Your task to perform on an android device: Search for seafood restaurants on Google Maps Image 0: 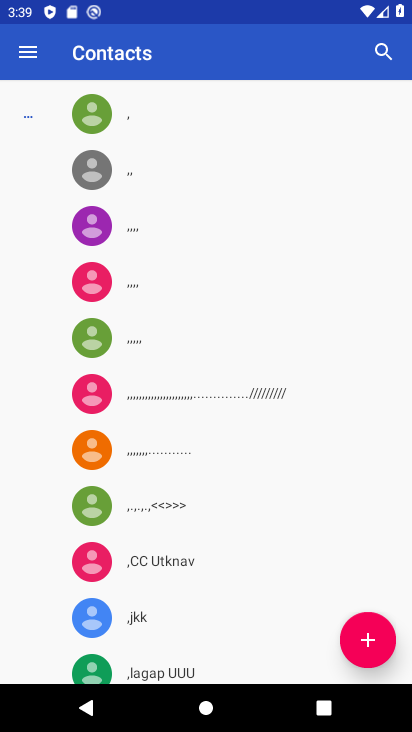
Step 0: drag from (258, 636) to (236, 317)
Your task to perform on an android device: Search for seafood restaurants on Google Maps Image 1: 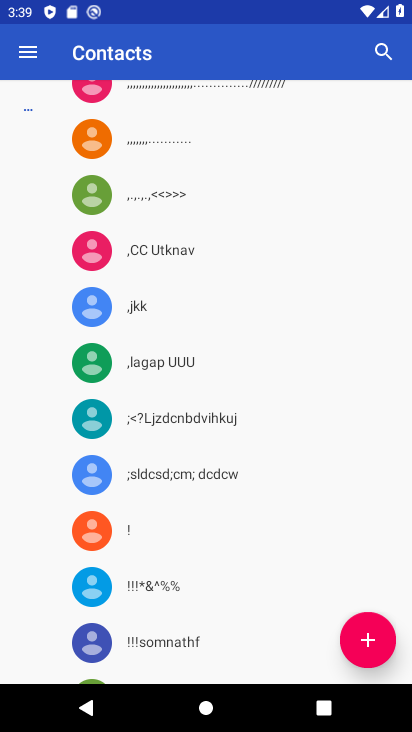
Step 1: press back button
Your task to perform on an android device: Search for seafood restaurants on Google Maps Image 2: 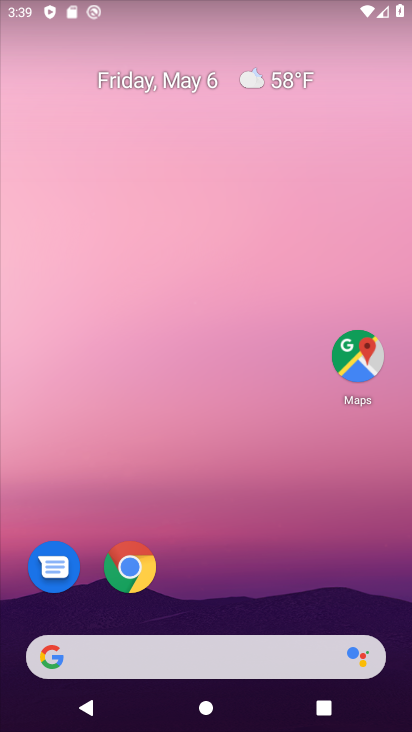
Step 2: click (361, 347)
Your task to perform on an android device: Search for seafood restaurants on Google Maps Image 3: 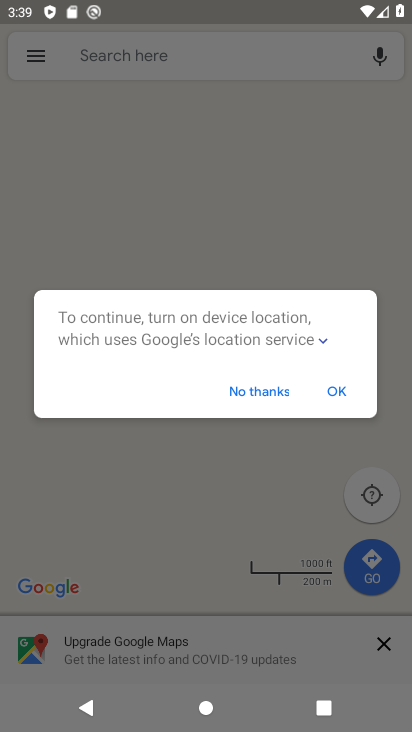
Step 3: click (182, 70)
Your task to perform on an android device: Search for seafood restaurants on Google Maps Image 4: 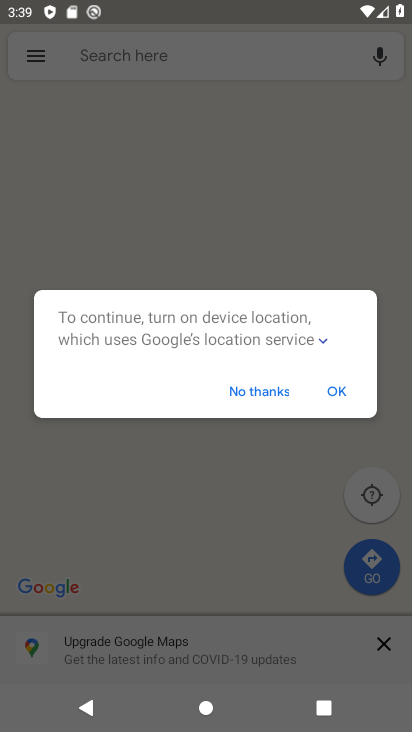
Step 4: click (343, 391)
Your task to perform on an android device: Search for seafood restaurants on Google Maps Image 5: 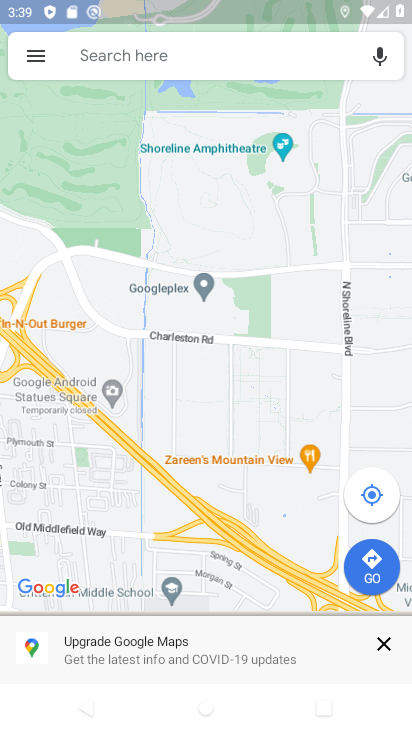
Step 5: drag from (181, 39) to (243, 39)
Your task to perform on an android device: Search for seafood restaurants on Google Maps Image 6: 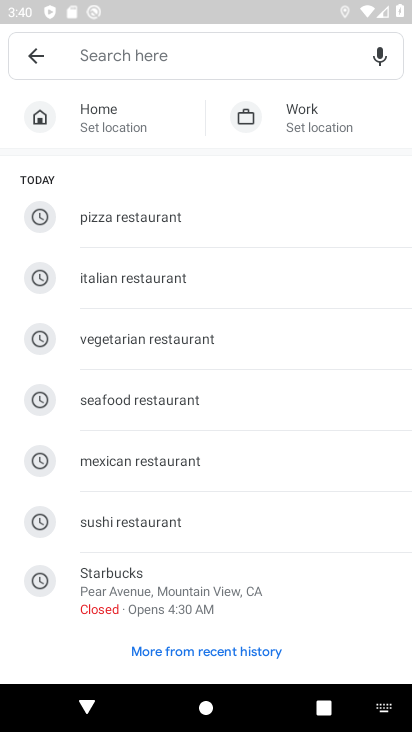
Step 6: click (193, 401)
Your task to perform on an android device: Search for seafood restaurants on Google Maps Image 7: 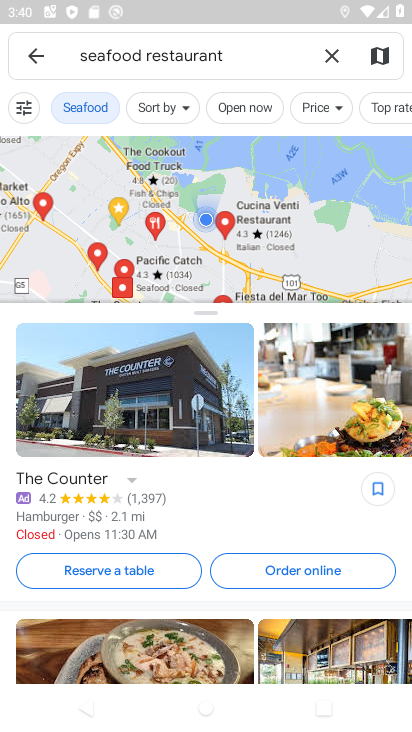
Step 7: task complete